Your task to perform on an android device: Open maps Image 0: 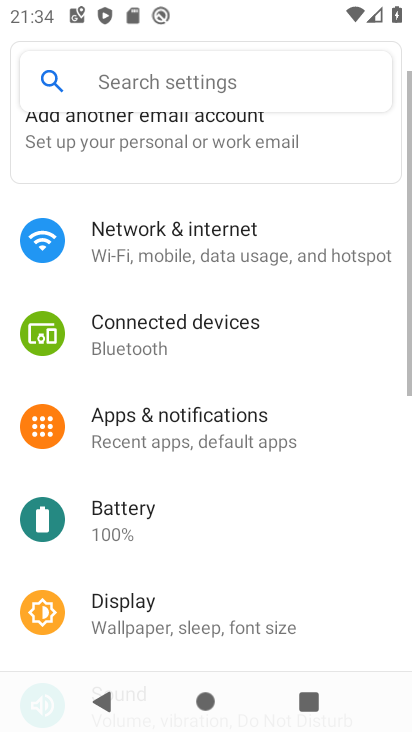
Step 0: press home button
Your task to perform on an android device: Open maps Image 1: 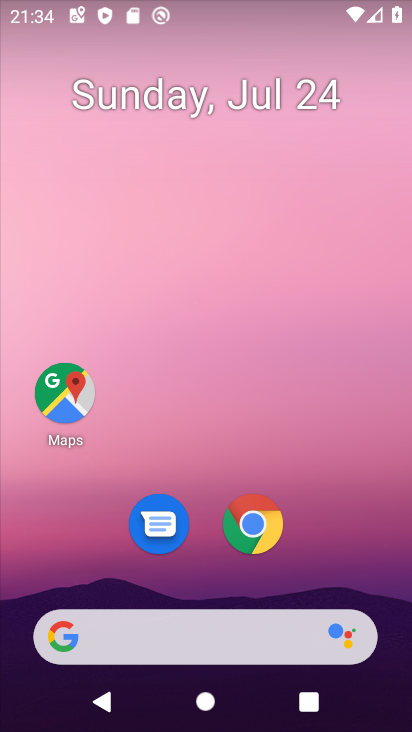
Step 1: click (67, 397)
Your task to perform on an android device: Open maps Image 2: 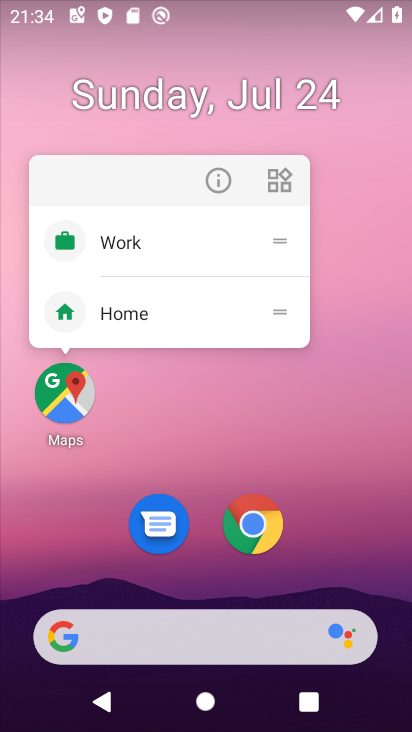
Step 2: click (64, 398)
Your task to perform on an android device: Open maps Image 3: 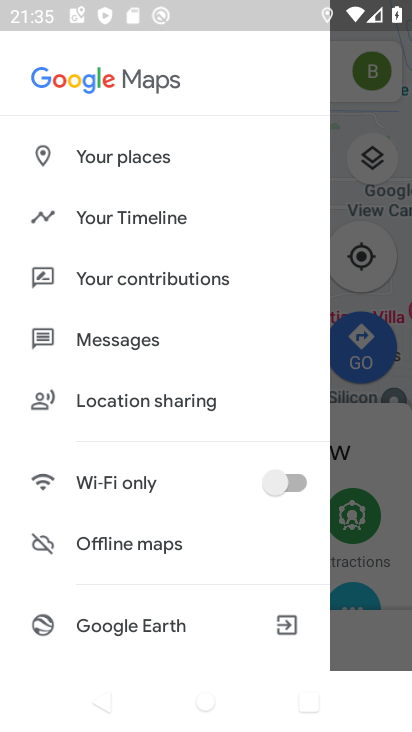
Step 3: click (342, 120)
Your task to perform on an android device: Open maps Image 4: 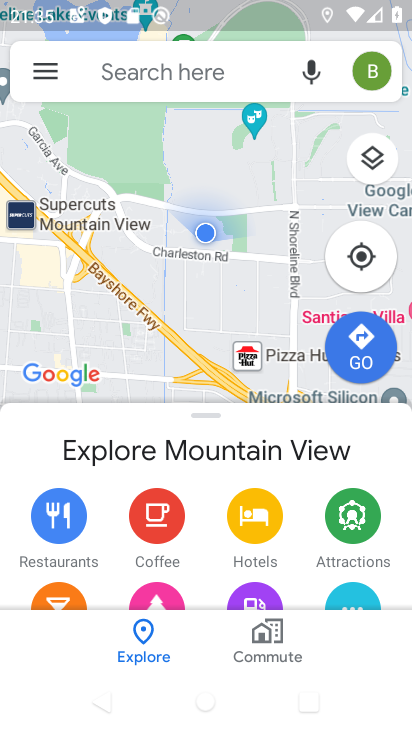
Step 4: task complete